Your task to perform on an android device: toggle notification dots Image 0: 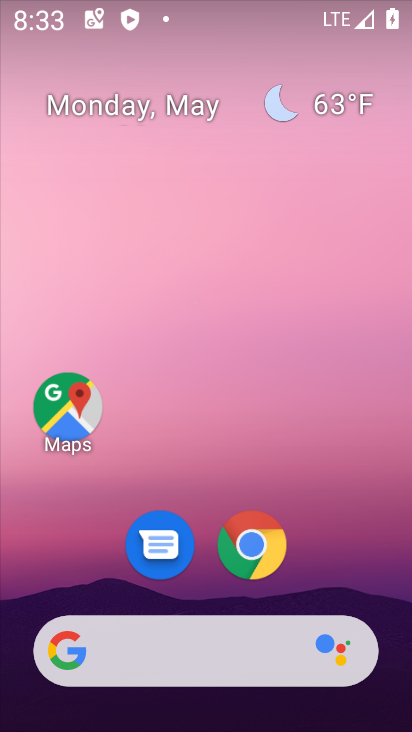
Step 0: drag from (229, 646) to (232, 158)
Your task to perform on an android device: toggle notification dots Image 1: 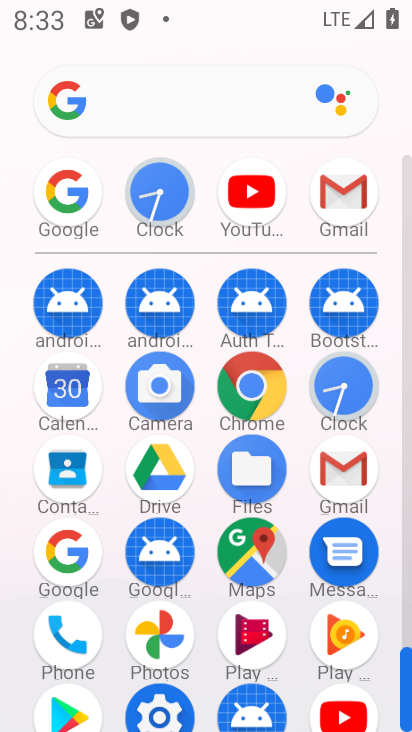
Step 1: click (163, 694)
Your task to perform on an android device: toggle notification dots Image 2: 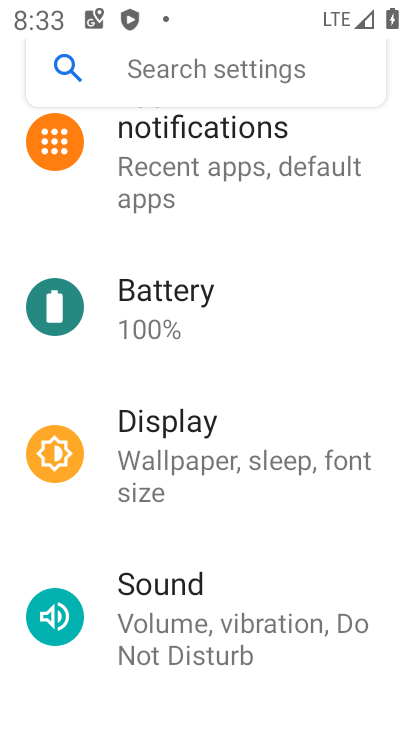
Step 2: click (210, 155)
Your task to perform on an android device: toggle notification dots Image 3: 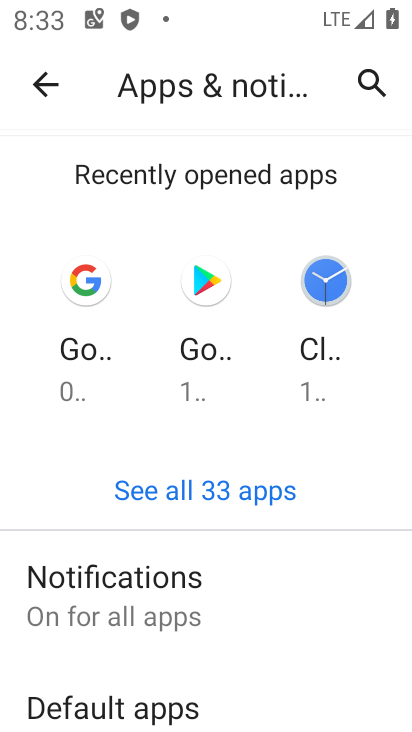
Step 3: click (144, 566)
Your task to perform on an android device: toggle notification dots Image 4: 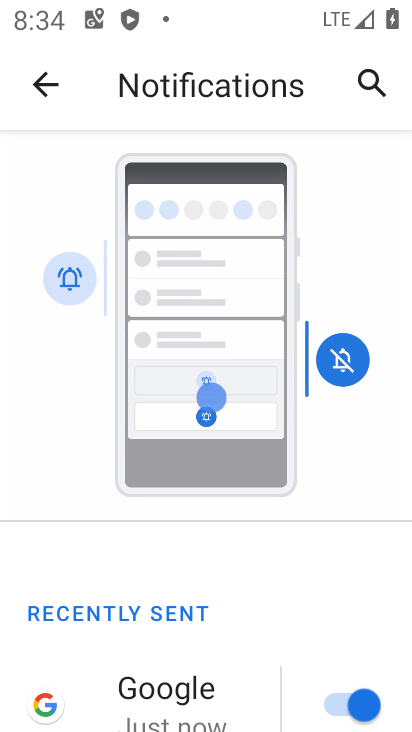
Step 4: drag from (273, 643) to (29, 124)
Your task to perform on an android device: toggle notification dots Image 5: 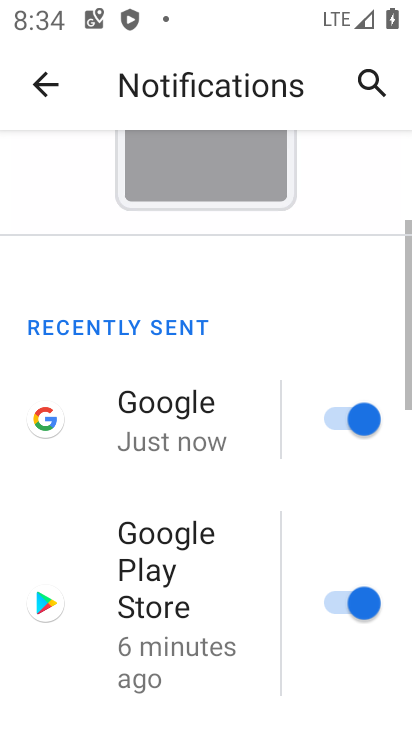
Step 5: drag from (145, 619) to (130, 113)
Your task to perform on an android device: toggle notification dots Image 6: 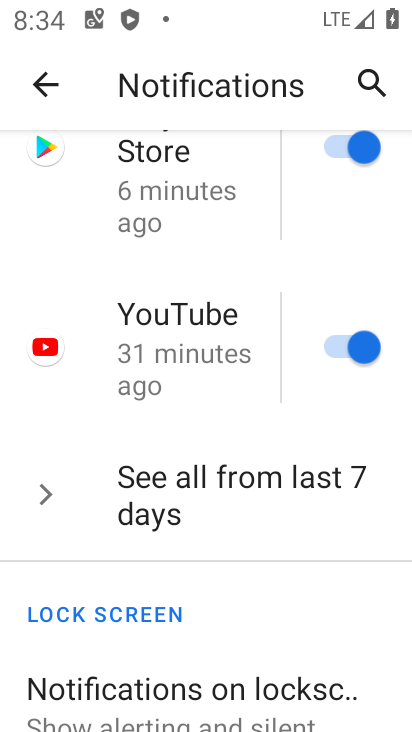
Step 6: drag from (270, 607) to (86, 55)
Your task to perform on an android device: toggle notification dots Image 7: 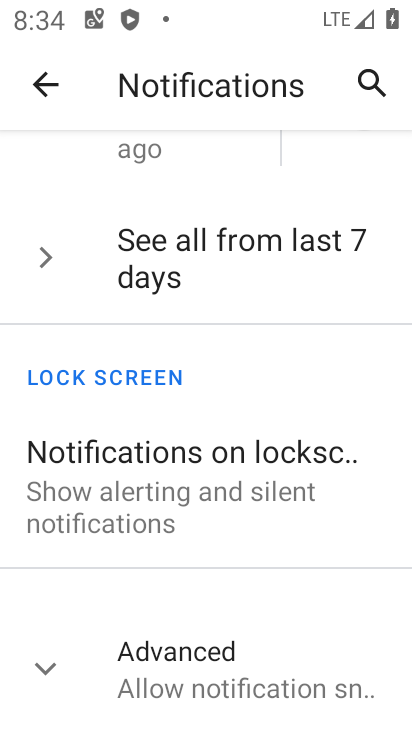
Step 7: click (202, 676)
Your task to perform on an android device: toggle notification dots Image 8: 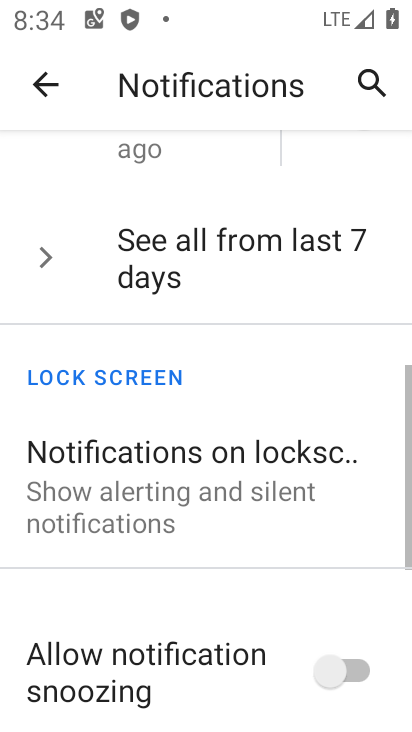
Step 8: drag from (263, 688) to (243, 29)
Your task to perform on an android device: toggle notification dots Image 9: 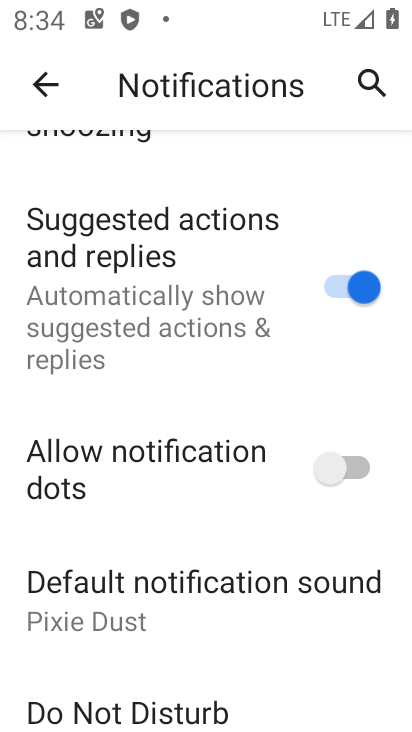
Step 9: click (337, 465)
Your task to perform on an android device: toggle notification dots Image 10: 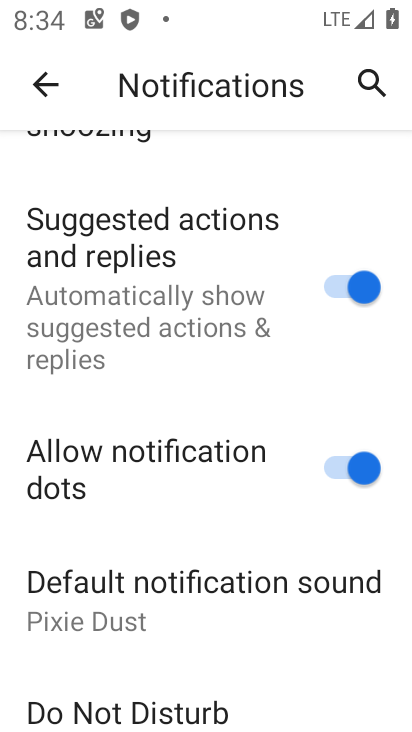
Step 10: task complete